Your task to perform on an android device: Go to Android settings Image 0: 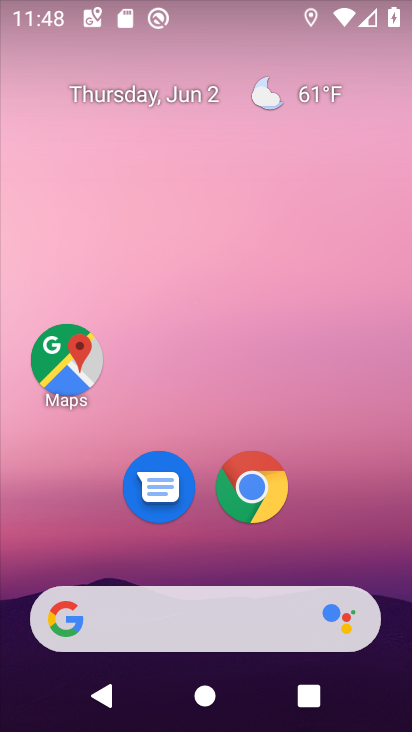
Step 0: drag from (338, 522) to (262, 129)
Your task to perform on an android device: Go to Android settings Image 1: 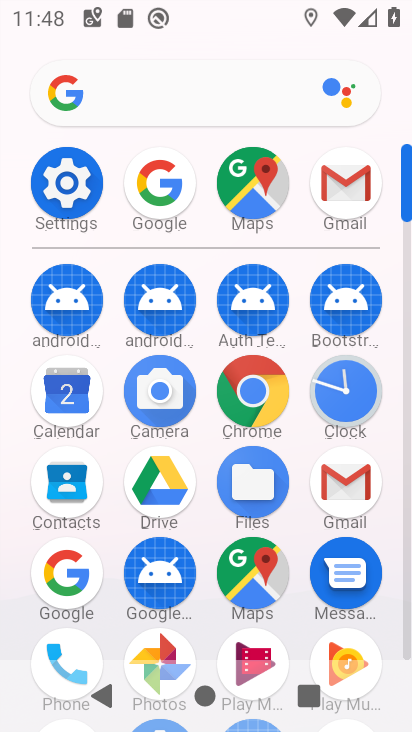
Step 1: click (66, 184)
Your task to perform on an android device: Go to Android settings Image 2: 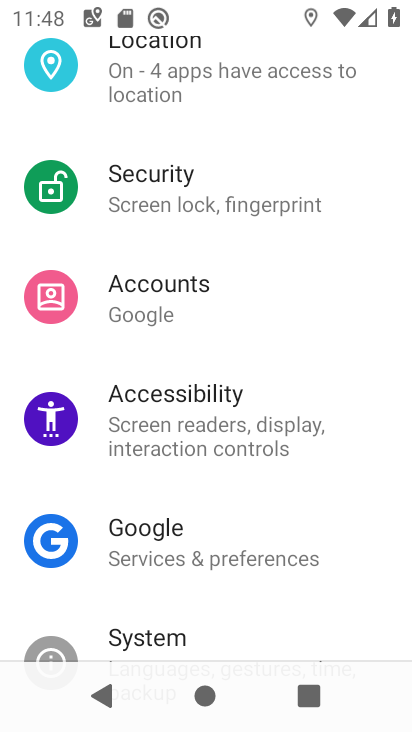
Step 2: task complete